Your task to perform on an android device: Go to Reddit.com Image 0: 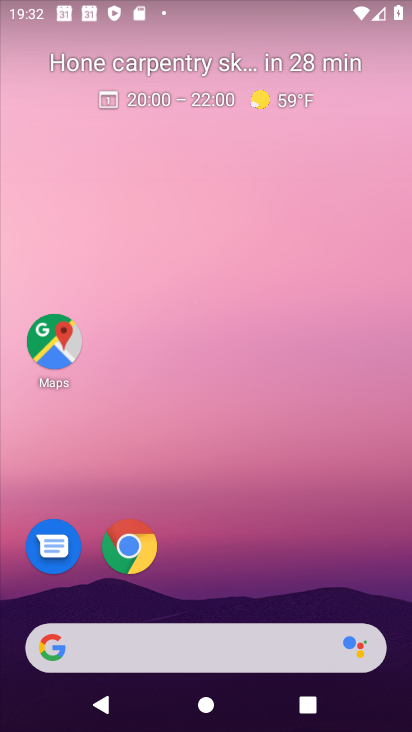
Step 0: click (148, 549)
Your task to perform on an android device: Go to Reddit.com Image 1: 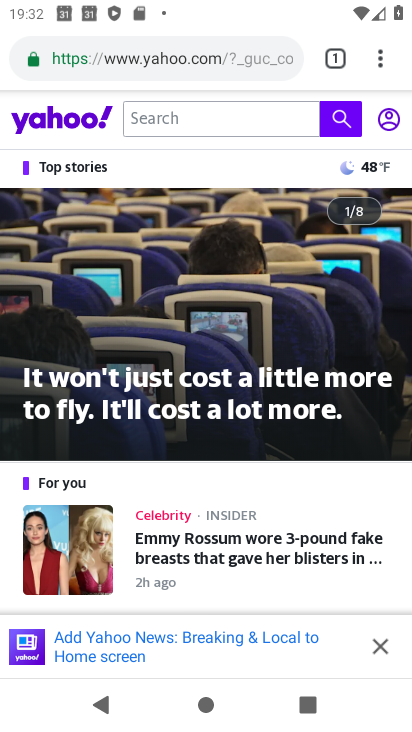
Step 1: click (150, 70)
Your task to perform on an android device: Go to Reddit.com Image 2: 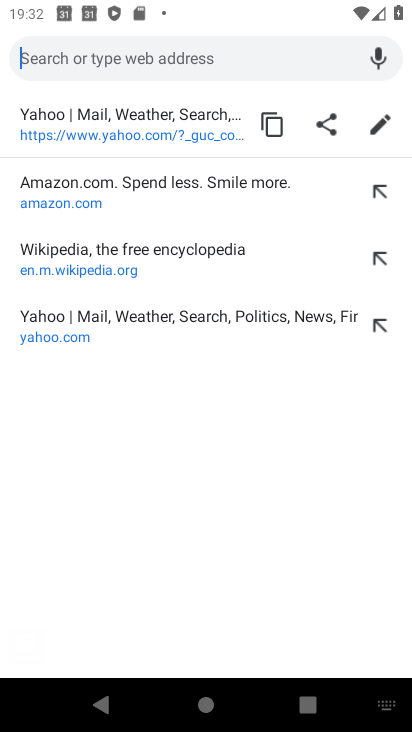
Step 2: type "reddit.com"
Your task to perform on an android device: Go to Reddit.com Image 3: 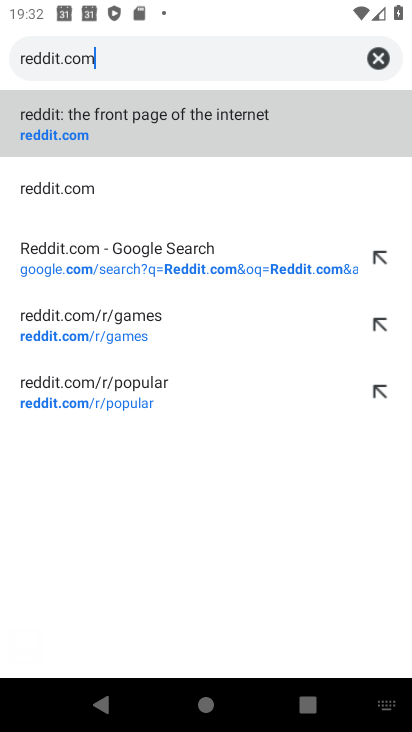
Step 3: click (179, 120)
Your task to perform on an android device: Go to Reddit.com Image 4: 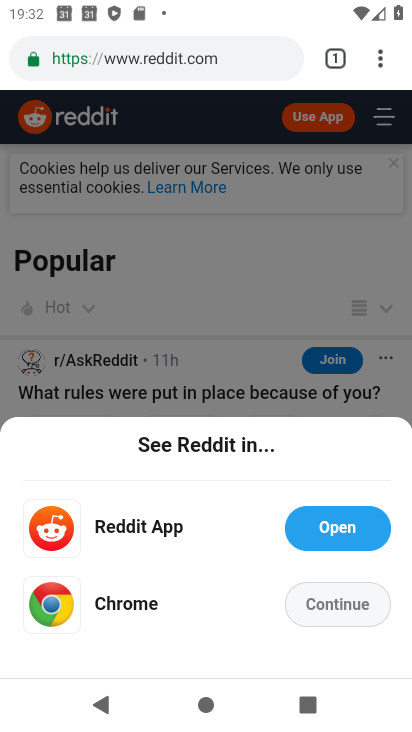
Step 4: click (350, 616)
Your task to perform on an android device: Go to Reddit.com Image 5: 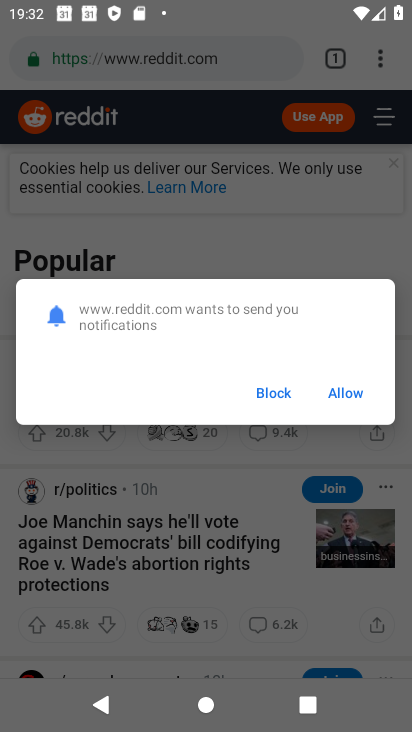
Step 5: click (285, 396)
Your task to perform on an android device: Go to Reddit.com Image 6: 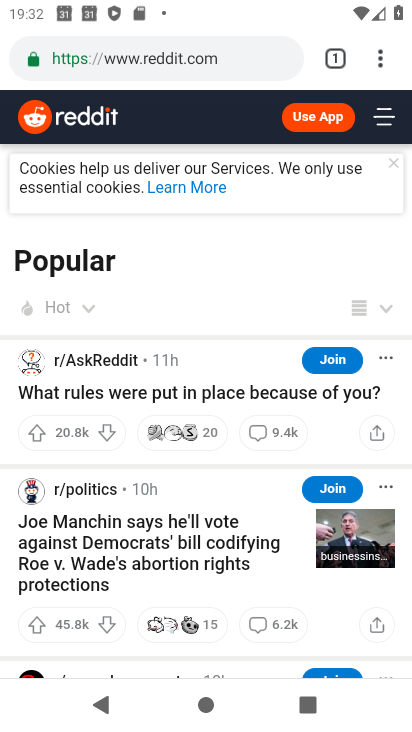
Step 6: task complete